Your task to perform on an android device: change the clock display to digital Image 0: 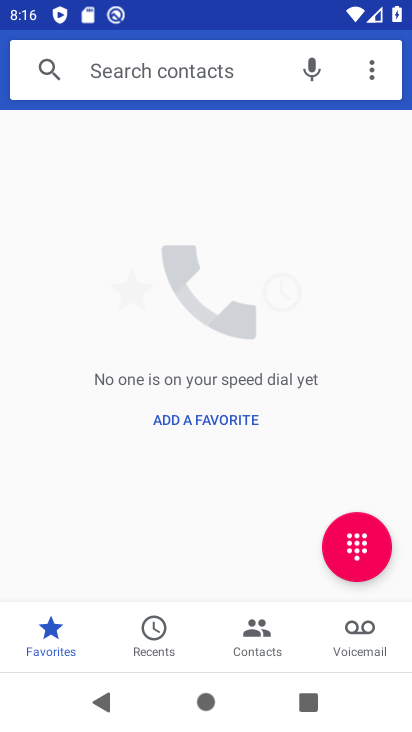
Step 0: press home button
Your task to perform on an android device: change the clock display to digital Image 1: 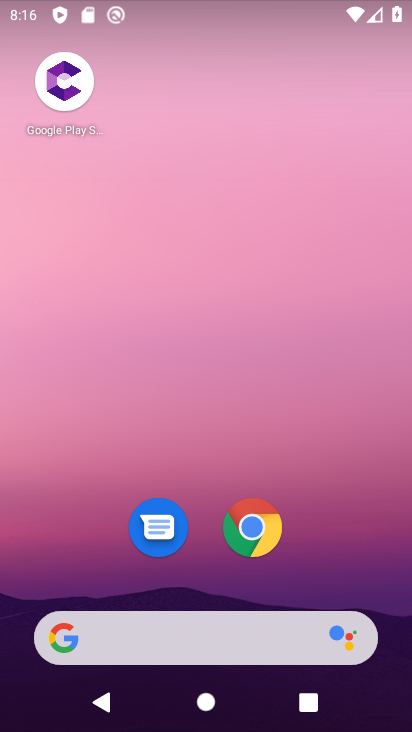
Step 1: drag from (334, 556) to (293, 46)
Your task to perform on an android device: change the clock display to digital Image 2: 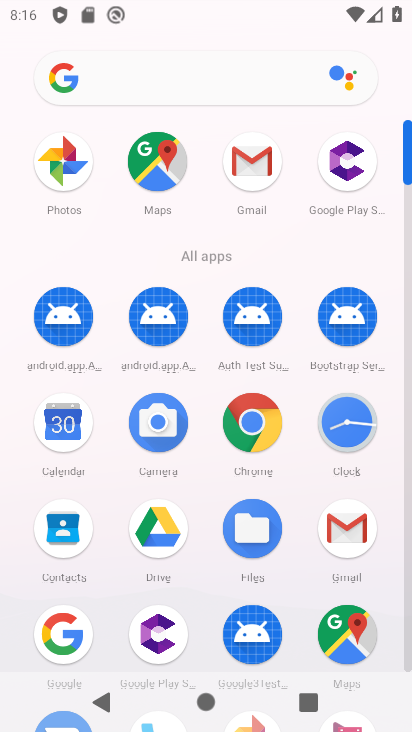
Step 2: click (348, 434)
Your task to perform on an android device: change the clock display to digital Image 3: 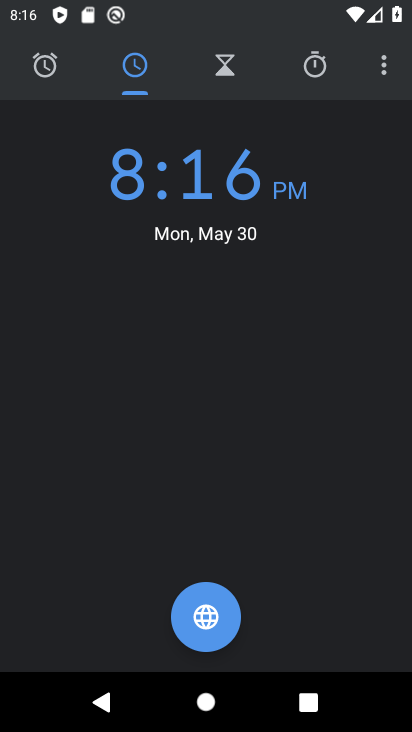
Step 3: click (376, 78)
Your task to perform on an android device: change the clock display to digital Image 4: 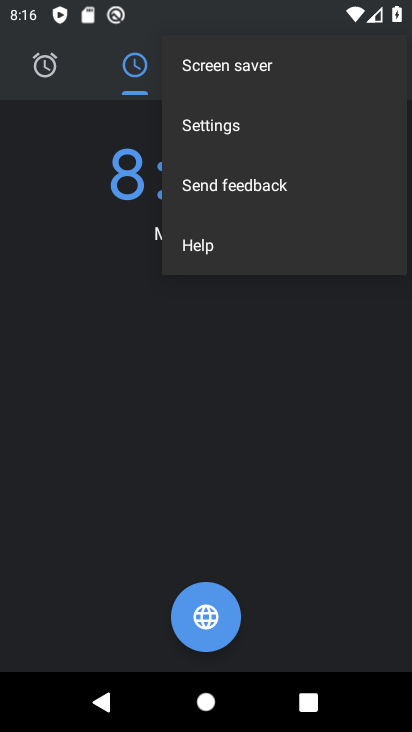
Step 4: click (236, 122)
Your task to perform on an android device: change the clock display to digital Image 5: 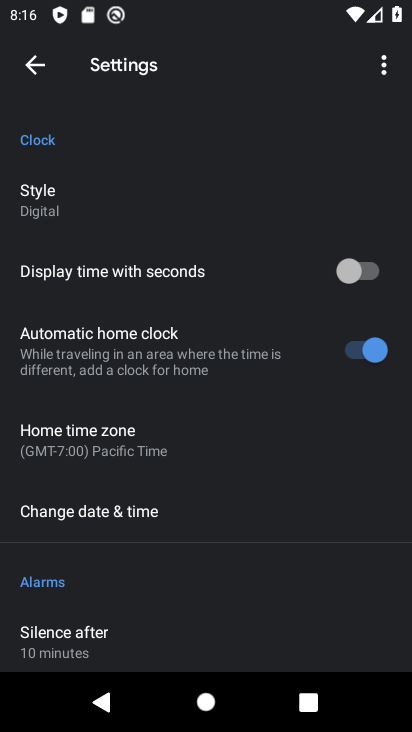
Step 5: click (63, 210)
Your task to perform on an android device: change the clock display to digital Image 6: 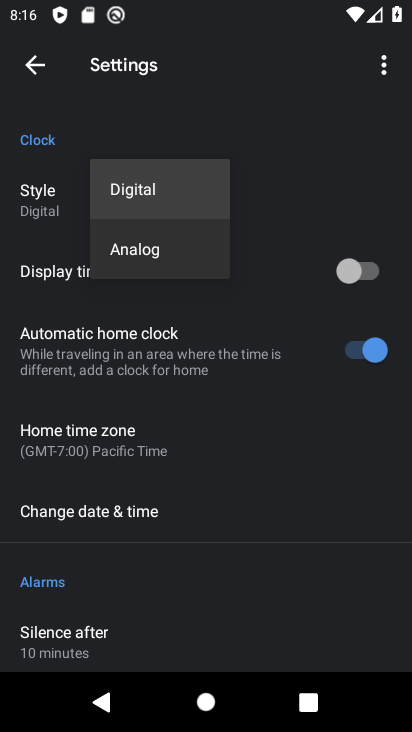
Step 6: click (154, 194)
Your task to perform on an android device: change the clock display to digital Image 7: 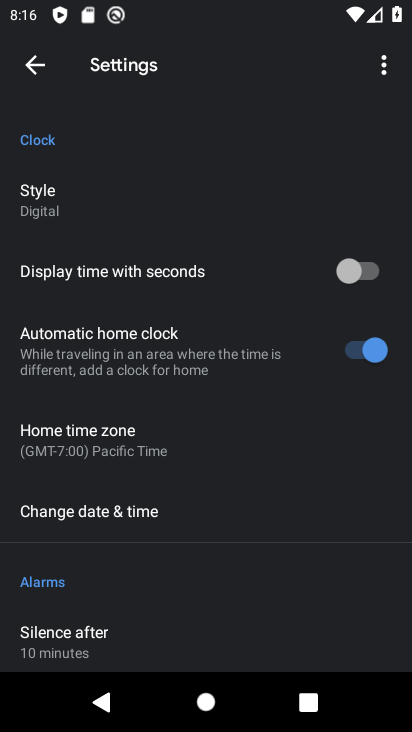
Step 7: task complete